Your task to perform on an android device: open app "LiveIn - Share Your Moment" (install if not already installed), go to login, and select forgot password Image 0: 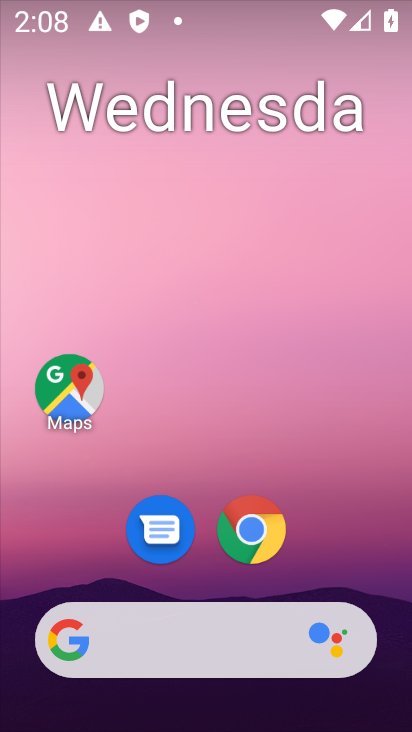
Step 0: drag from (237, 629) to (303, 116)
Your task to perform on an android device: open app "LiveIn - Share Your Moment" (install if not already installed), go to login, and select forgot password Image 1: 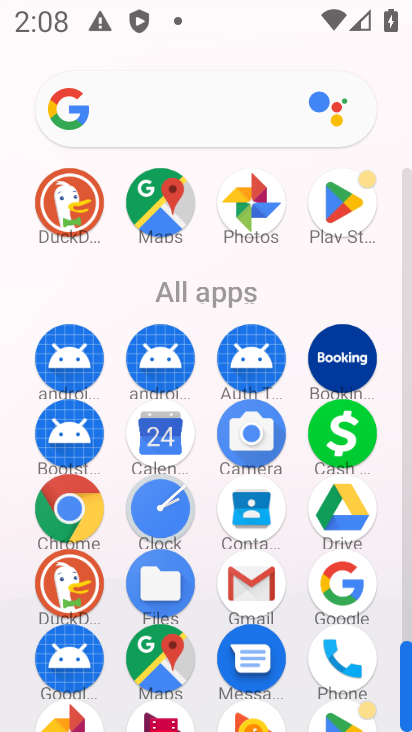
Step 1: click (308, 204)
Your task to perform on an android device: open app "LiveIn - Share Your Moment" (install if not already installed), go to login, and select forgot password Image 2: 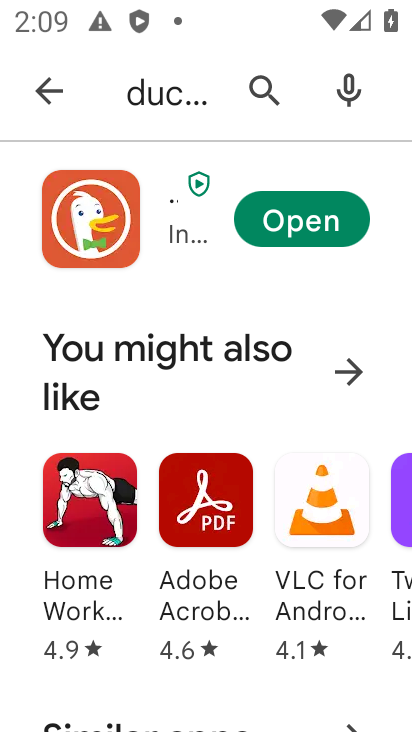
Step 2: click (261, 95)
Your task to perform on an android device: open app "LiveIn - Share Your Moment" (install if not already installed), go to login, and select forgot password Image 3: 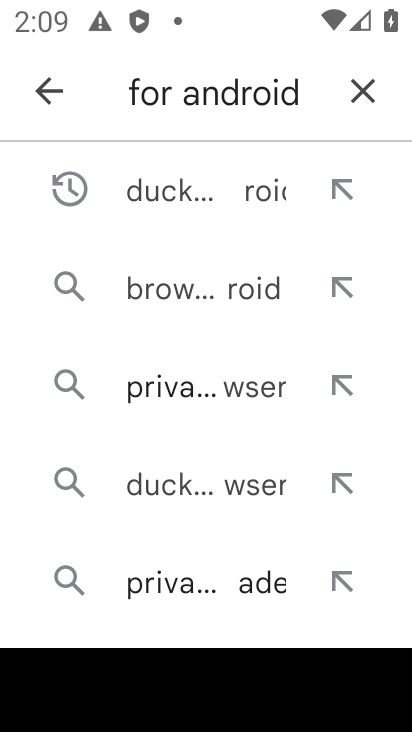
Step 3: click (374, 83)
Your task to perform on an android device: open app "LiveIn - Share Your Moment" (install if not already installed), go to login, and select forgot password Image 4: 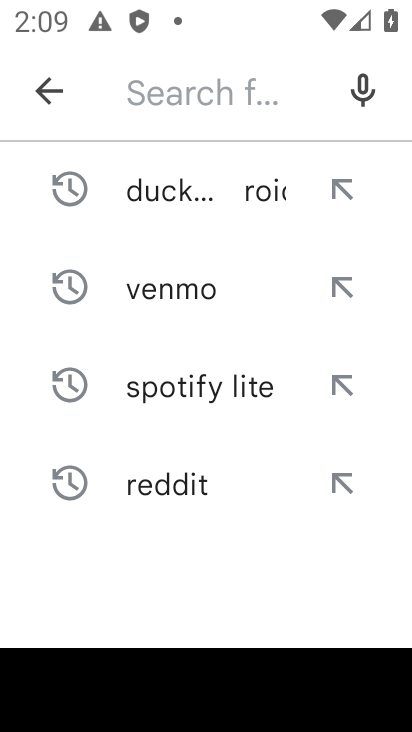
Step 4: type "livein"
Your task to perform on an android device: open app "LiveIn - Share Your Moment" (install if not already installed), go to login, and select forgot password Image 5: 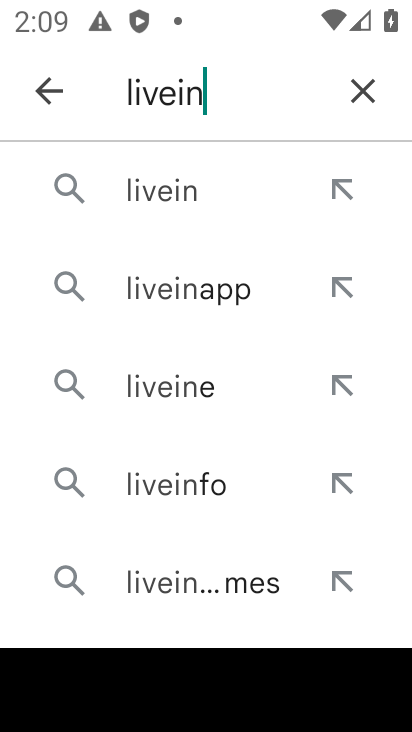
Step 5: click (187, 193)
Your task to perform on an android device: open app "LiveIn - Share Your Moment" (install if not already installed), go to login, and select forgot password Image 6: 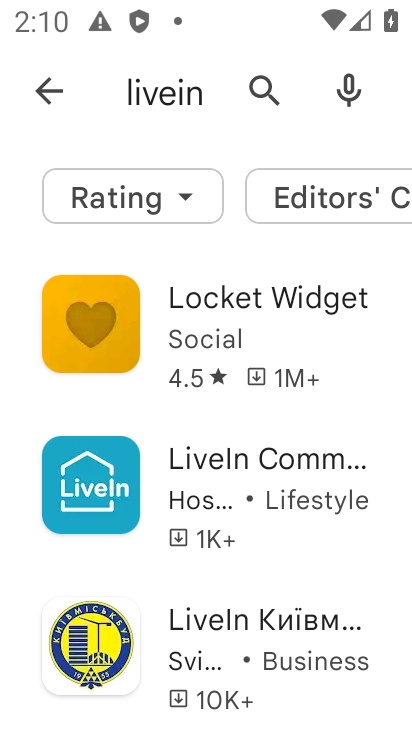
Step 6: task complete